Your task to perform on an android device: read, delete, or share a saved page in the chrome app Image 0: 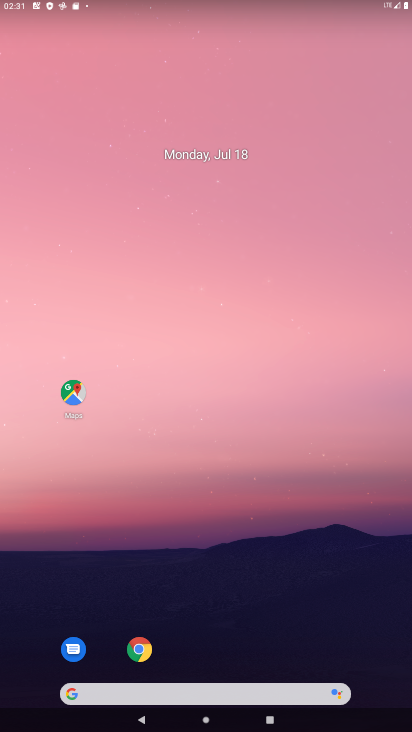
Step 0: click (134, 637)
Your task to perform on an android device: read, delete, or share a saved page in the chrome app Image 1: 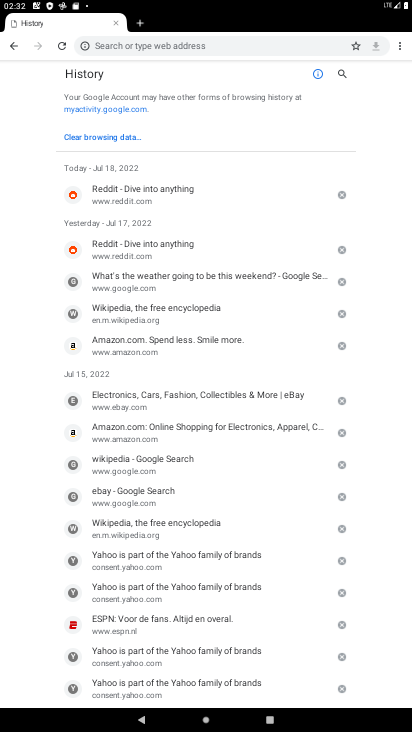
Step 1: click (405, 44)
Your task to perform on an android device: read, delete, or share a saved page in the chrome app Image 2: 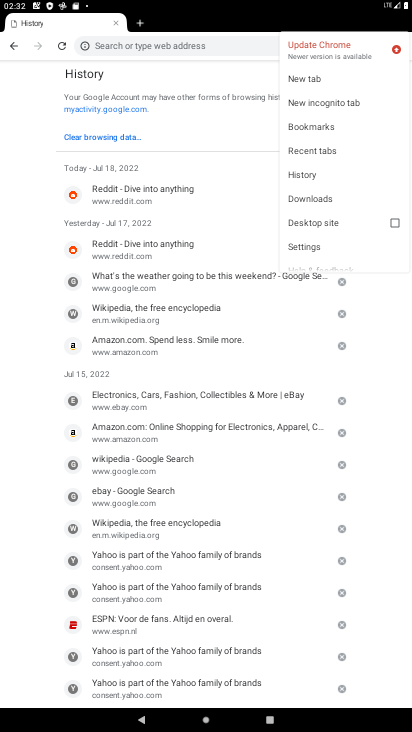
Step 2: click (321, 200)
Your task to perform on an android device: read, delete, or share a saved page in the chrome app Image 3: 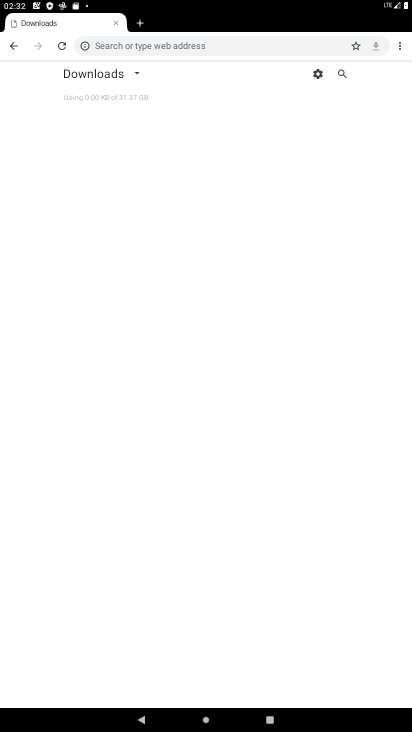
Step 3: task complete